Your task to perform on an android device: Search for sushi restaurants on Maps Image 0: 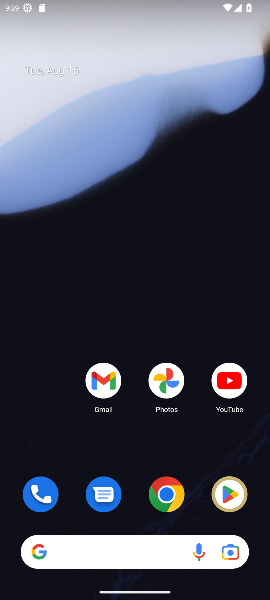
Step 0: drag from (123, 529) to (118, 110)
Your task to perform on an android device: Search for sushi restaurants on Maps Image 1: 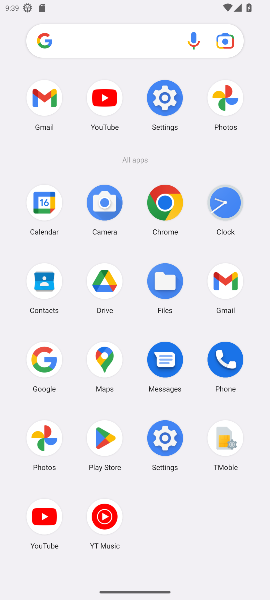
Step 1: click (109, 367)
Your task to perform on an android device: Search for sushi restaurants on Maps Image 2: 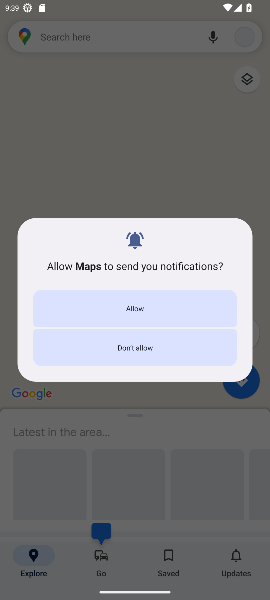
Step 2: click (123, 316)
Your task to perform on an android device: Search for sushi restaurants on Maps Image 3: 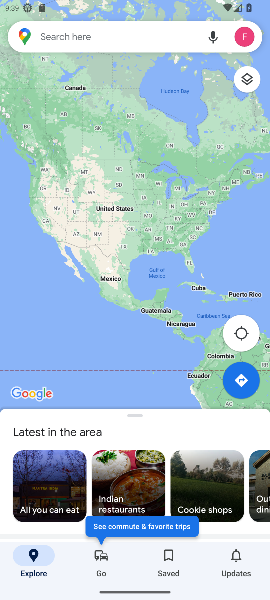
Step 3: click (45, 37)
Your task to perform on an android device: Search for sushi restaurants on Maps Image 4: 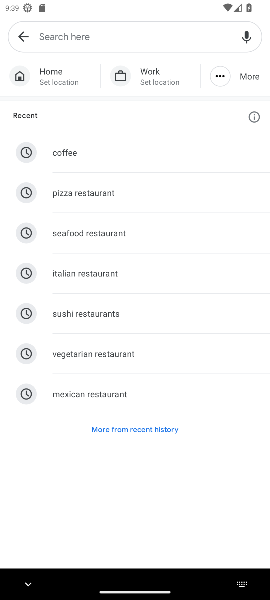
Step 4: type " sushi restaurants"
Your task to perform on an android device: Search for sushi restaurants on Maps Image 5: 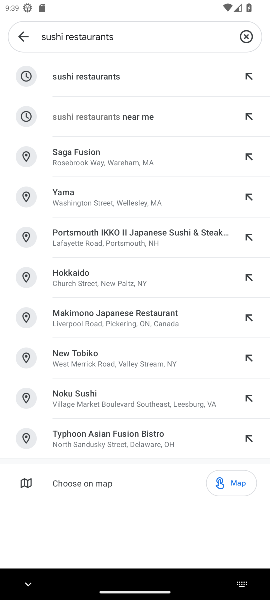
Step 5: click (61, 78)
Your task to perform on an android device: Search for sushi restaurants on Maps Image 6: 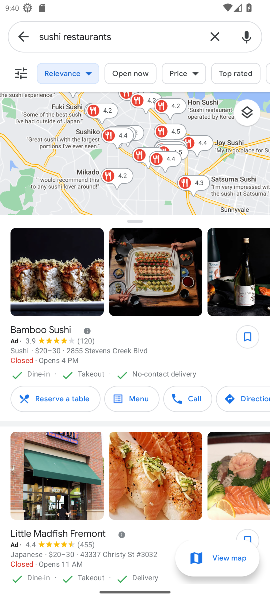
Step 6: task complete